Your task to perform on an android device: Go to Reddit.com Image 0: 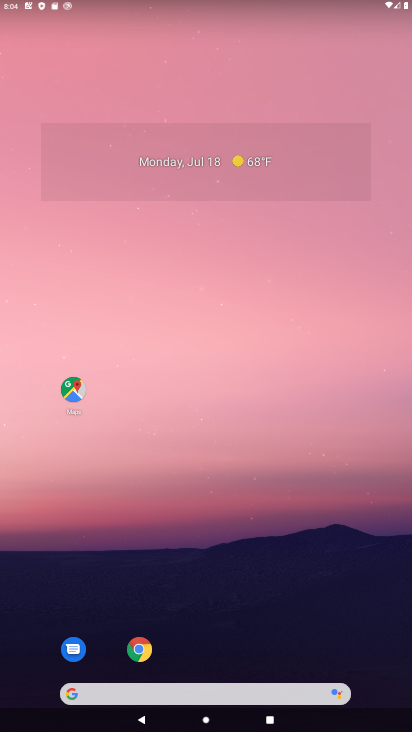
Step 0: click (97, 689)
Your task to perform on an android device: Go to Reddit.com Image 1: 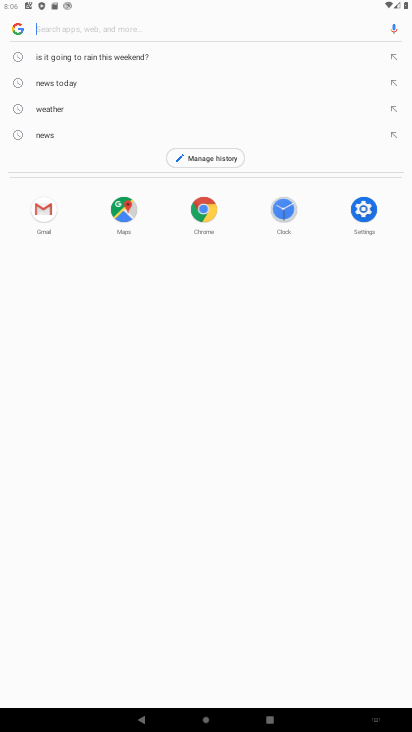
Step 1: type "reddit.com"
Your task to perform on an android device: Go to Reddit.com Image 2: 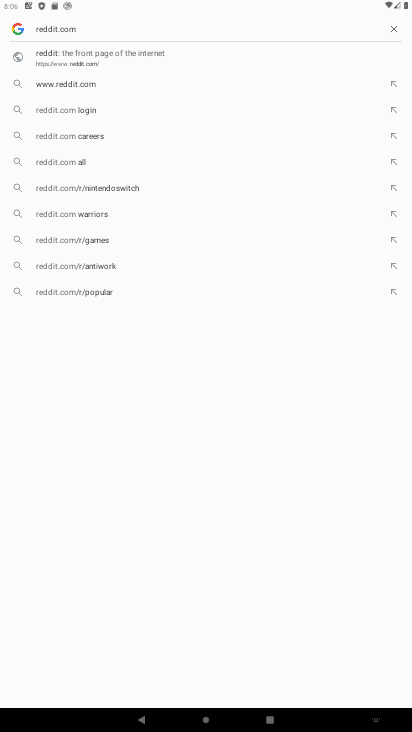
Step 2: click (190, 68)
Your task to perform on an android device: Go to Reddit.com Image 3: 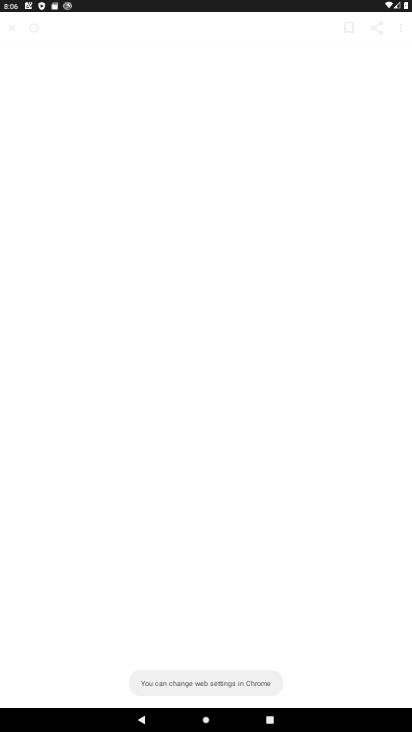
Step 3: task complete